Your task to perform on an android device: delete browsing data in the chrome app Image 0: 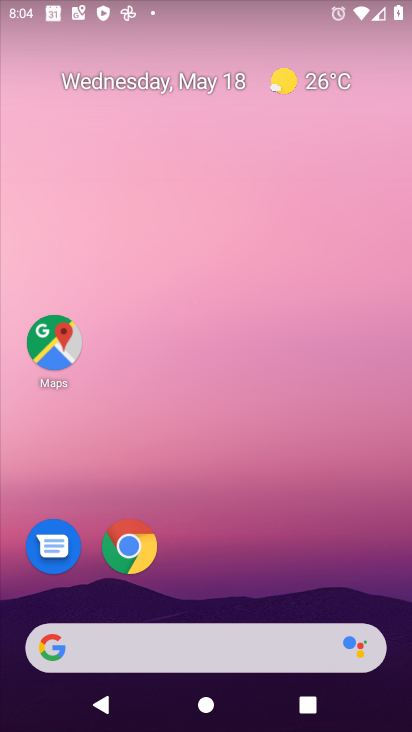
Step 0: drag from (369, 599) to (57, 198)
Your task to perform on an android device: delete browsing data in the chrome app Image 1: 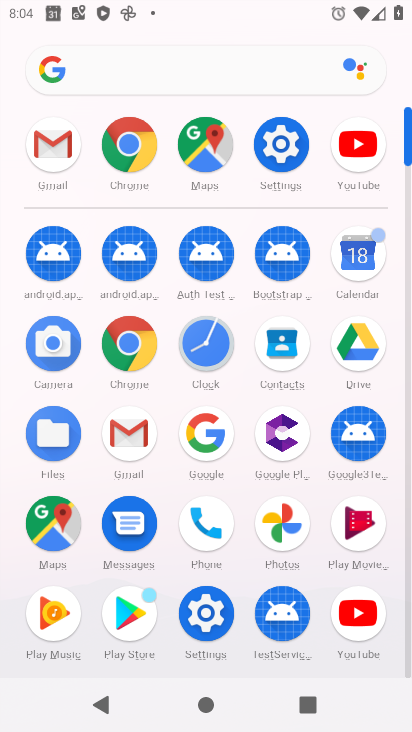
Step 1: click (124, 140)
Your task to perform on an android device: delete browsing data in the chrome app Image 2: 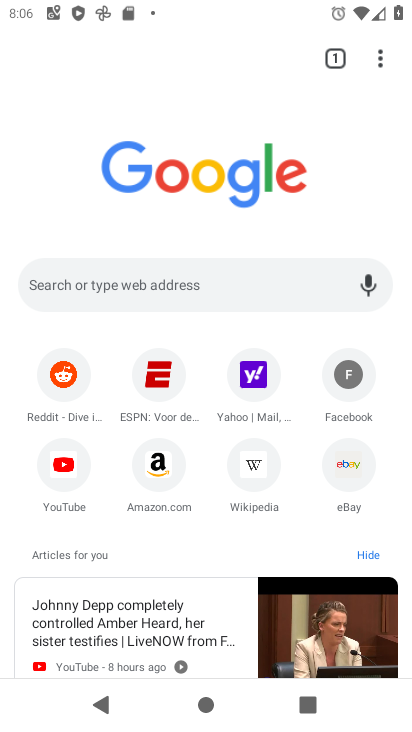
Step 2: click (376, 53)
Your task to perform on an android device: delete browsing data in the chrome app Image 3: 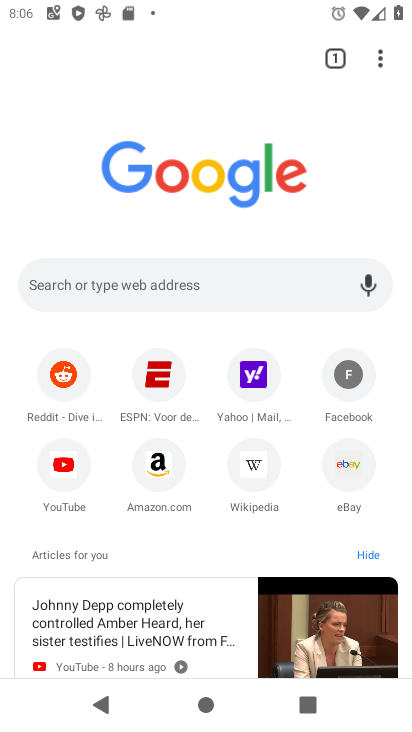
Step 3: click (379, 51)
Your task to perform on an android device: delete browsing data in the chrome app Image 4: 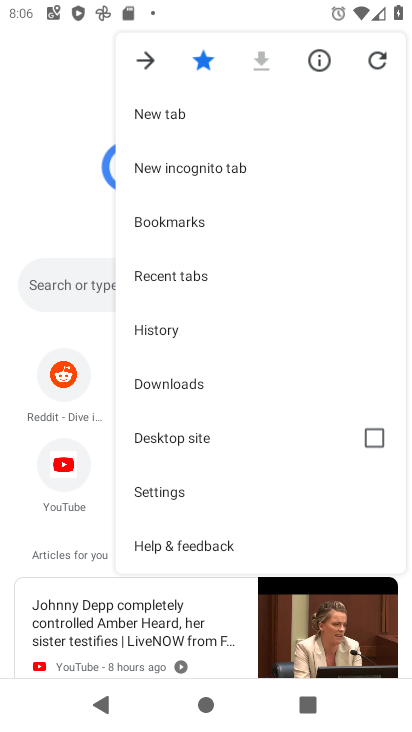
Step 4: click (380, 50)
Your task to perform on an android device: delete browsing data in the chrome app Image 5: 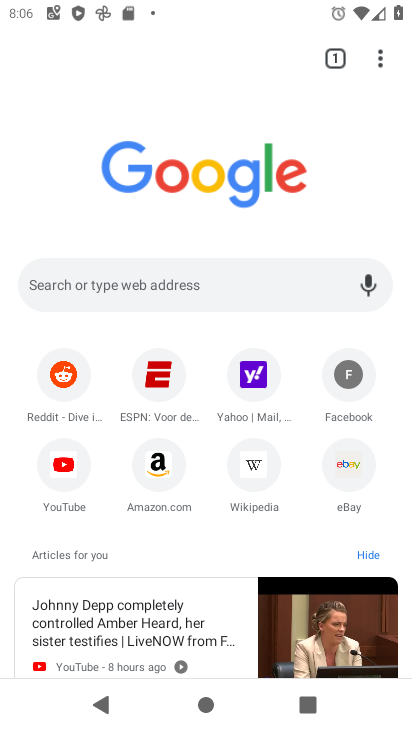
Step 5: click (380, 50)
Your task to perform on an android device: delete browsing data in the chrome app Image 6: 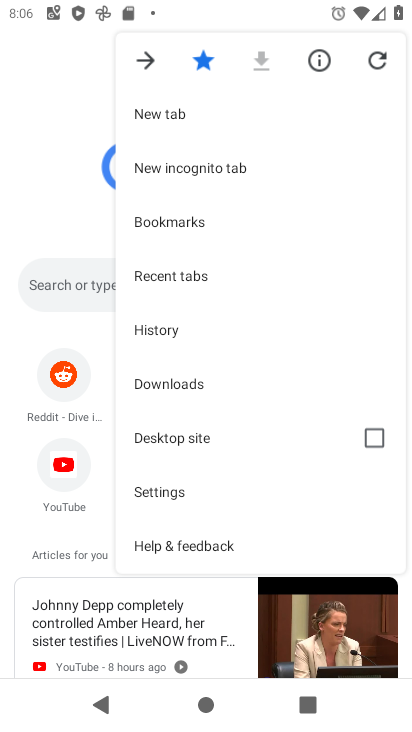
Step 6: click (195, 333)
Your task to perform on an android device: delete browsing data in the chrome app Image 7: 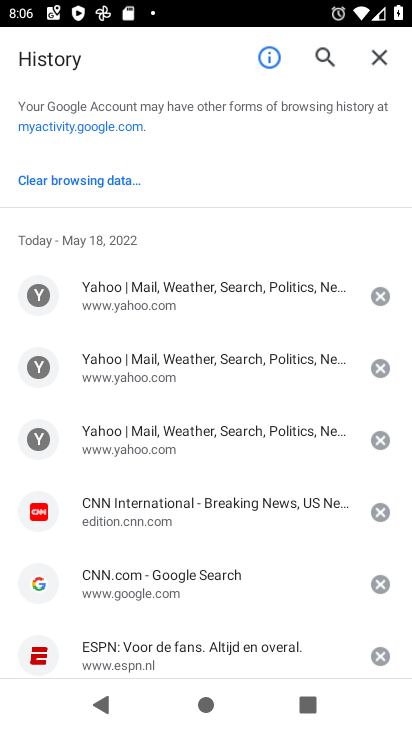
Step 7: click (80, 177)
Your task to perform on an android device: delete browsing data in the chrome app Image 8: 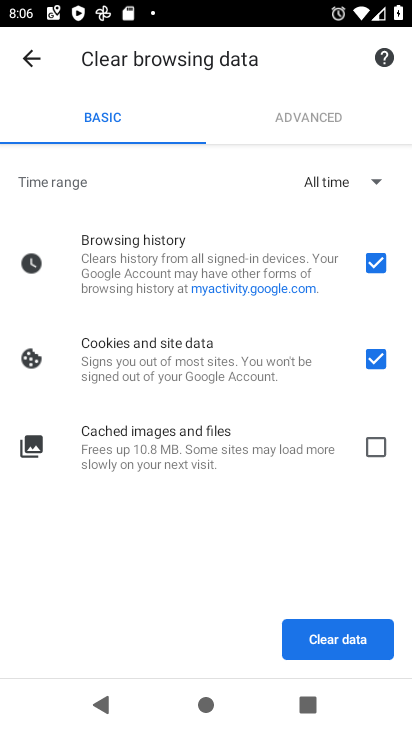
Step 8: click (349, 658)
Your task to perform on an android device: delete browsing data in the chrome app Image 9: 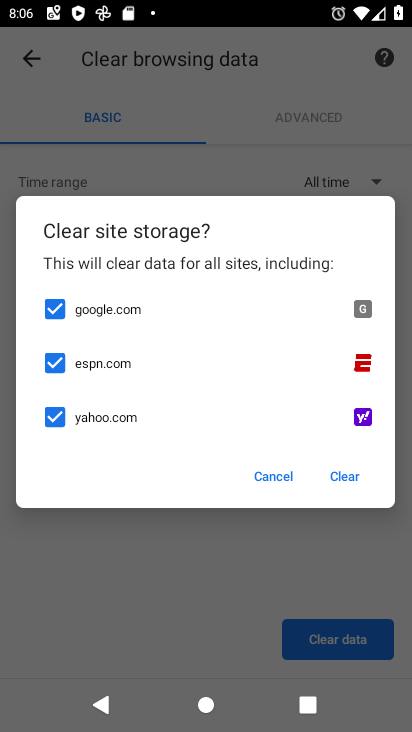
Step 9: click (334, 478)
Your task to perform on an android device: delete browsing data in the chrome app Image 10: 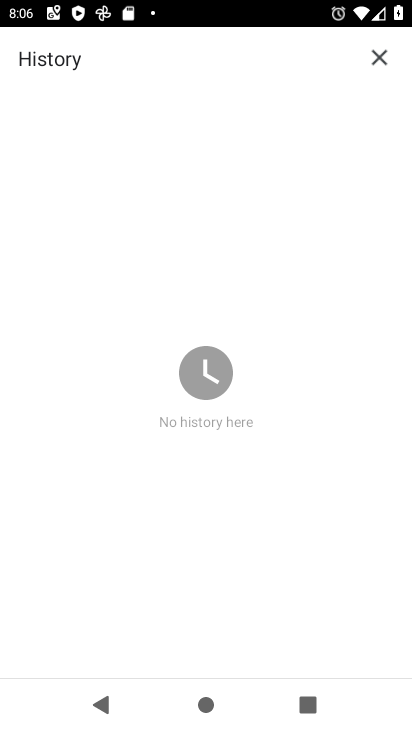
Step 10: task complete